Your task to perform on an android device: Go to location settings Image 0: 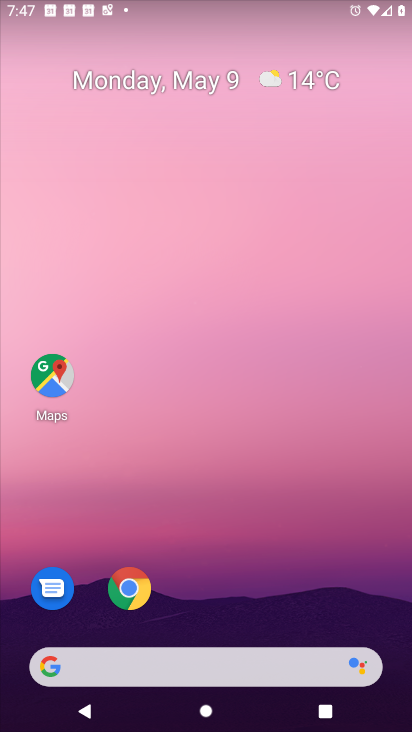
Step 0: drag from (354, 606) to (312, 45)
Your task to perform on an android device: Go to location settings Image 1: 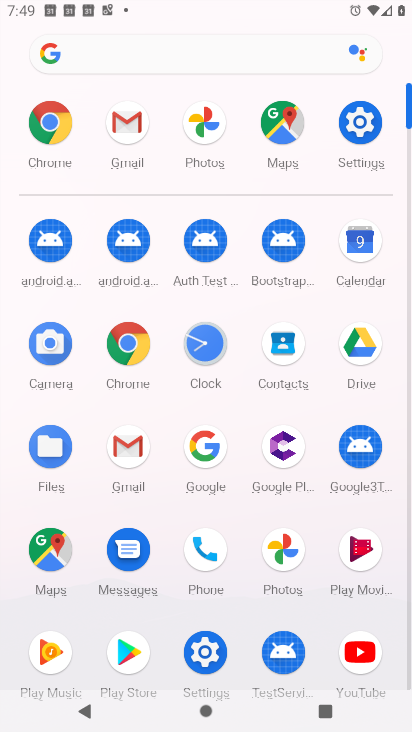
Step 1: click (181, 675)
Your task to perform on an android device: Go to location settings Image 2: 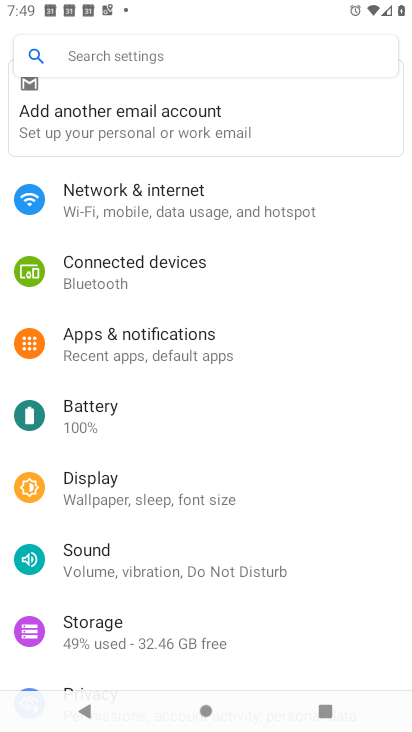
Step 2: drag from (63, 628) to (137, 271)
Your task to perform on an android device: Go to location settings Image 3: 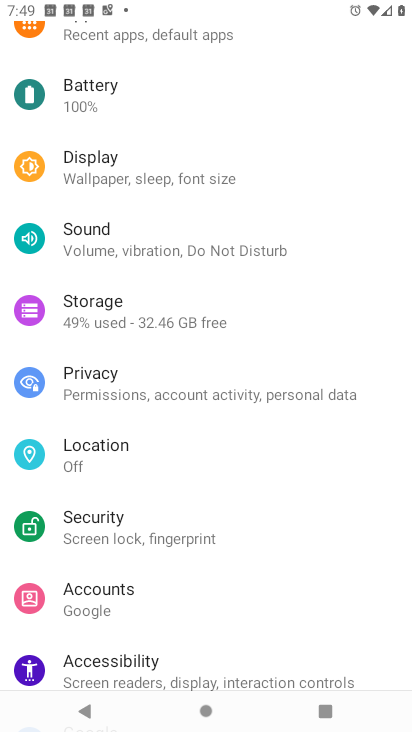
Step 3: click (138, 468)
Your task to perform on an android device: Go to location settings Image 4: 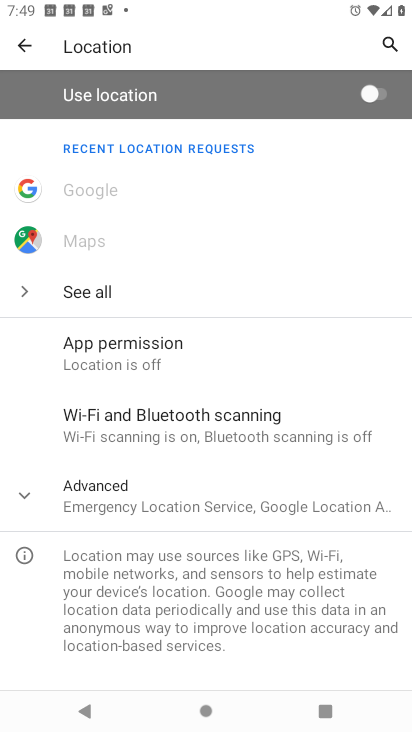
Step 4: task complete